Your task to perform on an android device: Search for Italian restaurants on Maps Image 0: 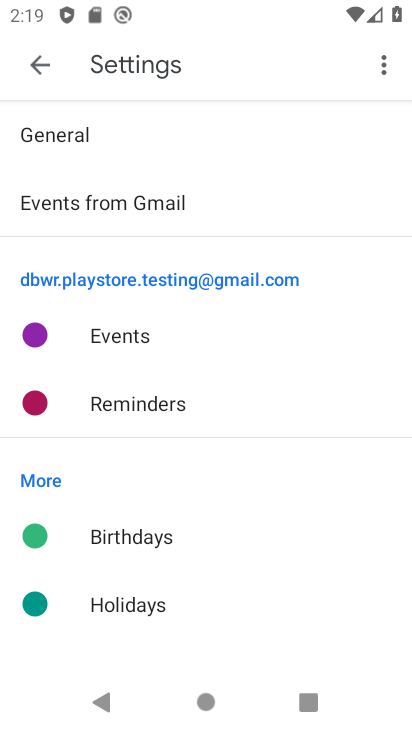
Step 0: press home button
Your task to perform on an android device: Search for Italian restaurants on Maps Image 1: 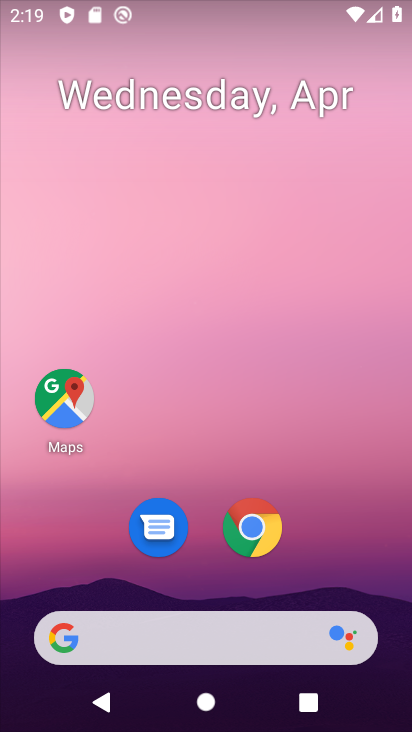
Step 1: drag from (339, 526) to (346, 155)
Your task to perform on an android device: Search for Italian restaurants on Maps Image 2: 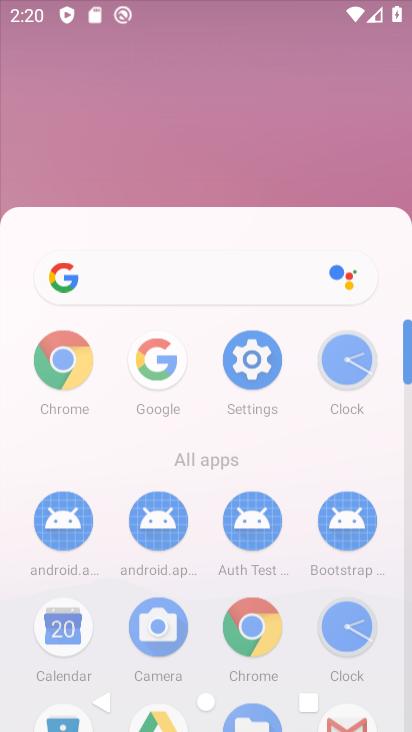
Step 2: drag from (375, 542) to (407, 555)
Your task to perform on an android device: Search for Italian restaurants on Maps Image 3: 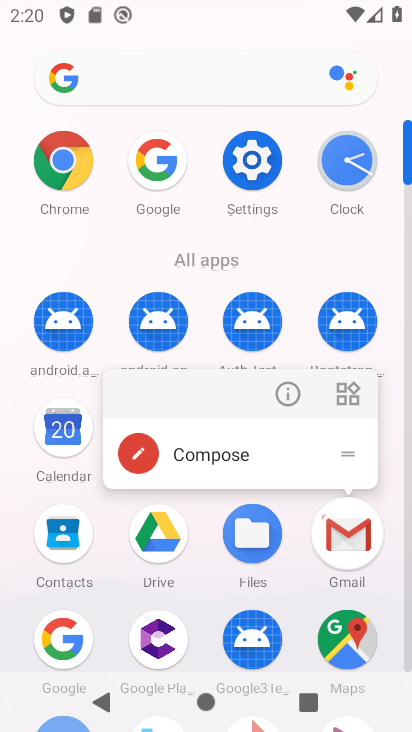
Step 3: click (355, 645)
Your task to perform on an android device: Search for Italian restaurants on Maps Image 4: 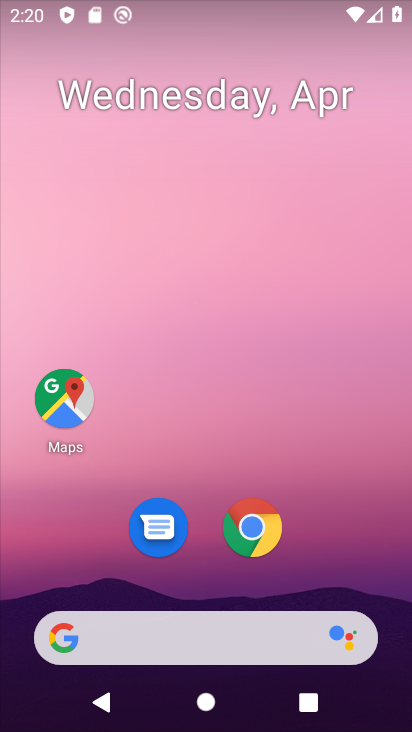
Step 4: drag from (375, 447) to (410, 90)
Your task to perform on an android device: Search for Italian restaurants on Maps Image 5: 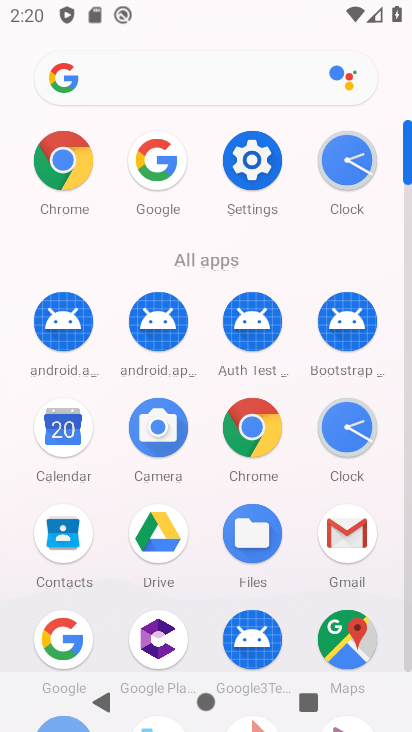
Step 5: click (346, 640)
Your task to perform on an android device: Search for Italian restaurants on Maps Image 6: 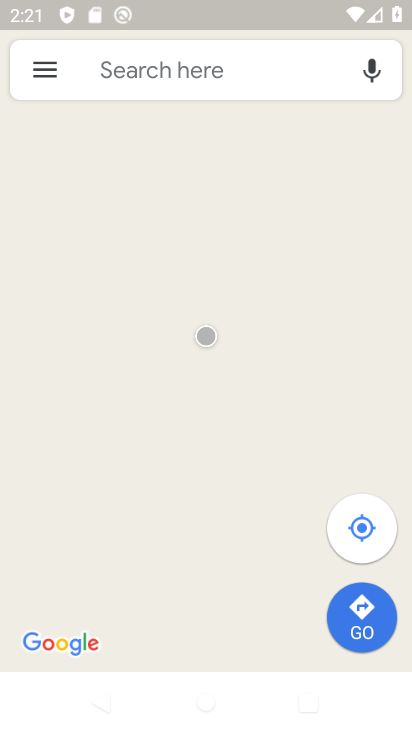
Step 6: click (201, 73)
Your task to perform on an android device: Search for Italian restaurants on Maps Image 7: 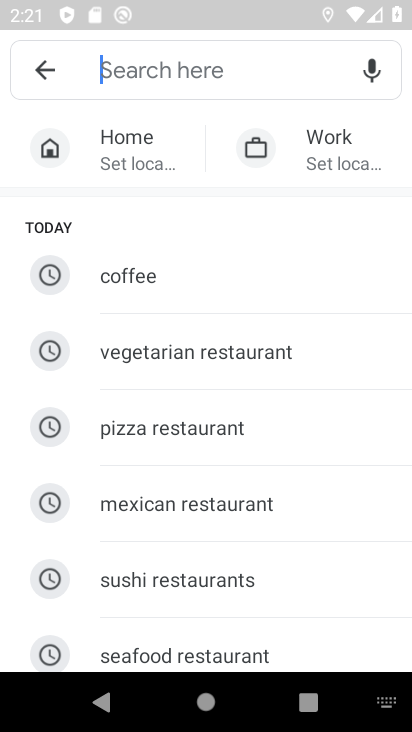
Step 7: drag from (290, 522) to (275, 304)
Your task to perform on an android device: Search for Italian restaurants on Maps Image 8: 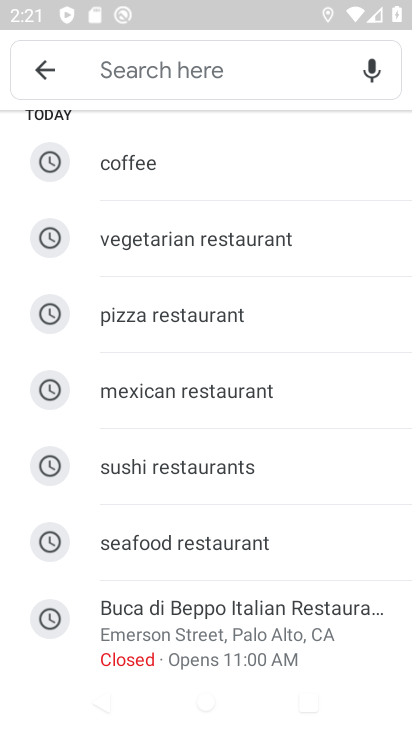
Step 8: drag from (249, 600) to (273, 264)
Your task to perform on an android device: Search for Italian restaurants on Maps Image 9: 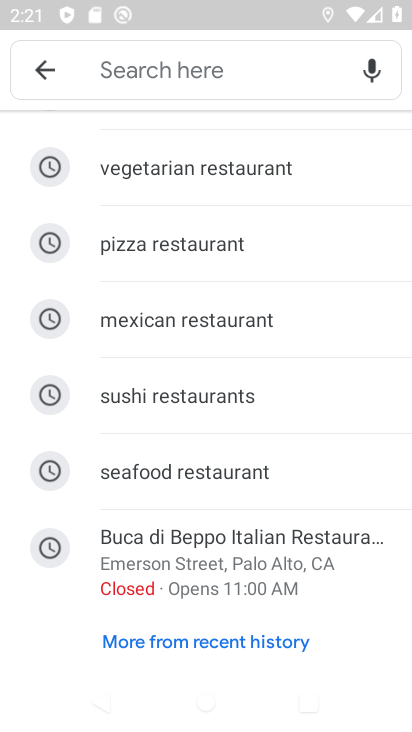
Step 9: drag from (286, 297) to (298, 526)
Your task to perform on an android device: Search for Italian restaurants on Maps Image 10: 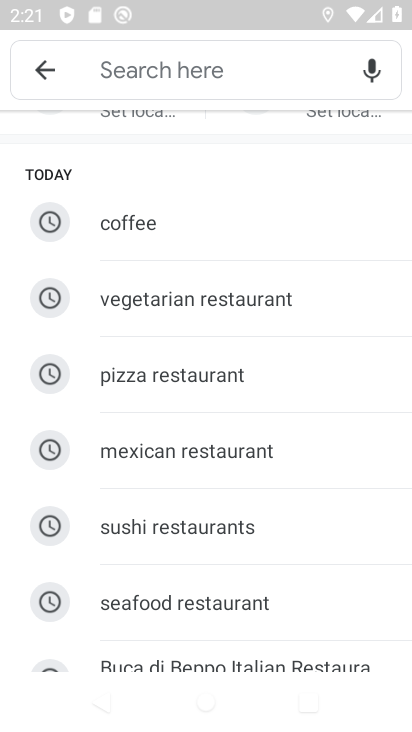
Step 10: drag from (335, 421) to (329, 634)
Your task to perform on an android device: Search for Italian restaurants on Maps Image 11: 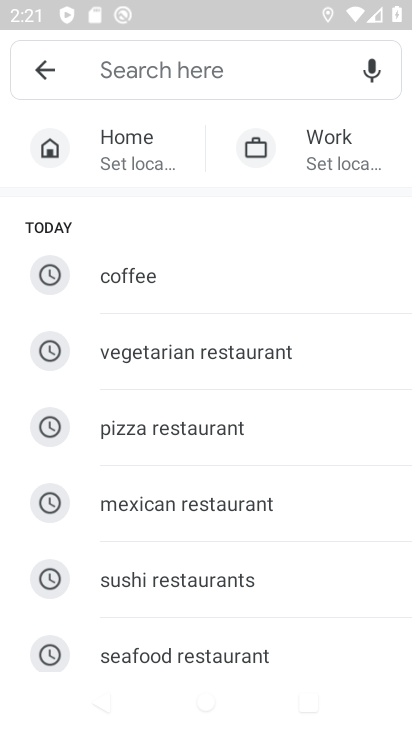
Step 11: drag from (349, 394) to (367, 640)
Your task to perform on an android device: Search for Italian restaurants on Maps Image 12: 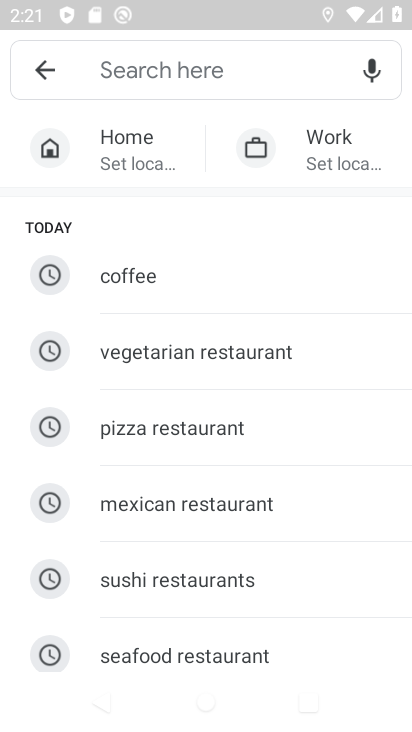
Step 12: click (196, 85)
Your task to perform on an android device: Search for Italian restaurants on Maps Image 13: 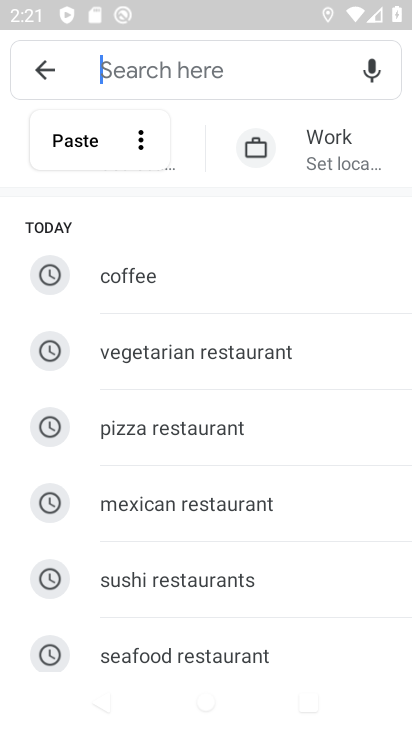
Step 13: type "italian returents"
Your task to perform on an android device: Search for Italian restaurants on Maps Image 14: 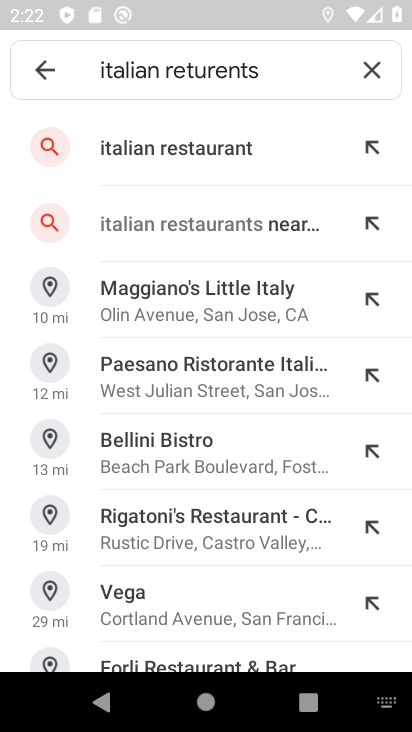
Step 14: click (121, 151)
Your task to perform on an android device: Search for Italian restaurants on Maps Image 15: 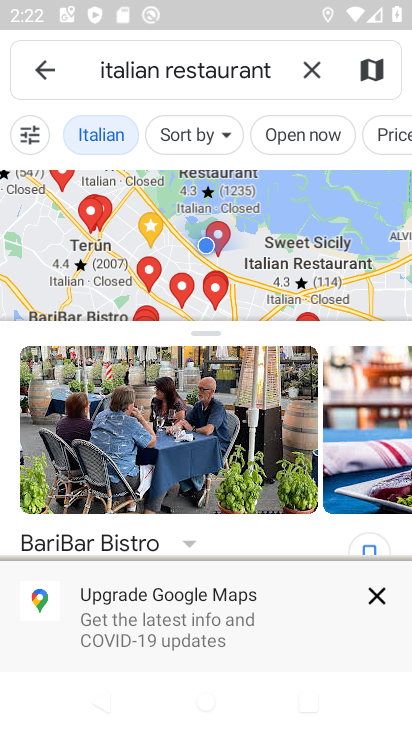
Step 15: task complete